Your task to perform on an android device: Search for sushi restaurants on Maps Image 0: 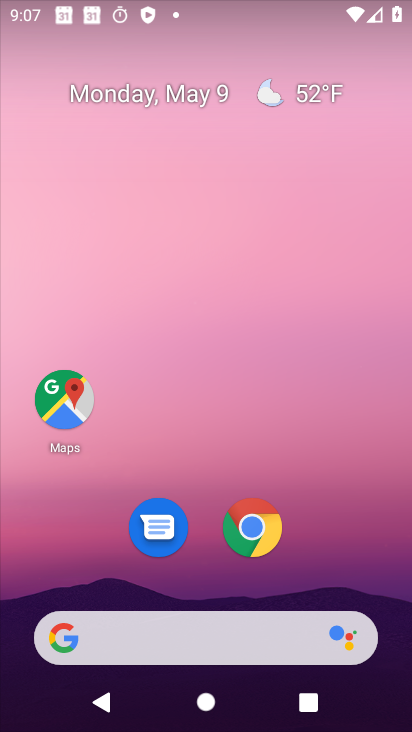
Step 0: drag from (383, 557) to (330, 145)
Your task to perform on an android device: Search for sushi restaurants on Maps Image 1: 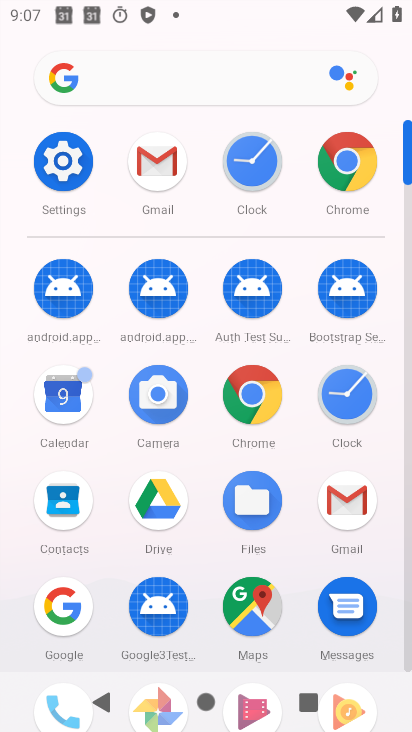
Step 1: click (268, 632)
Your task to perform on an android device: Search for sushi restaurants on Maps Image 2: 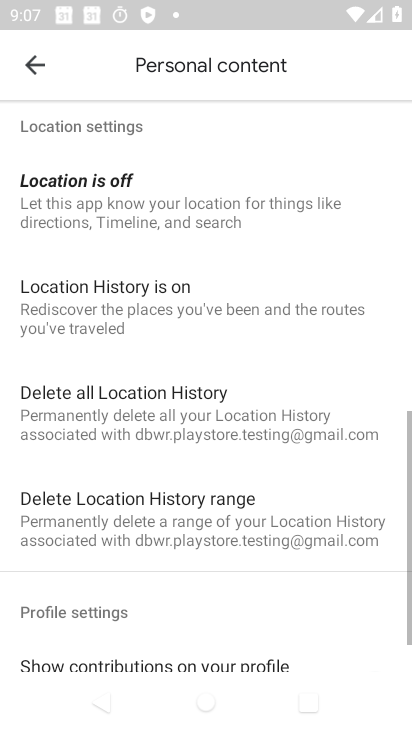
Step 2: click (22, 72)
Your task to perform on an android device: Search for sushi restaurants on Maps Image 3: 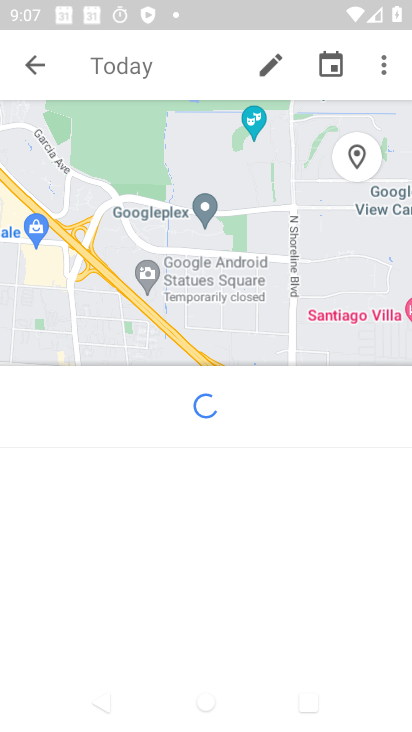
Step 3: click (21, 72)
Your task to perform on an android device: Search for sushi restaurants on Maps Image 4: 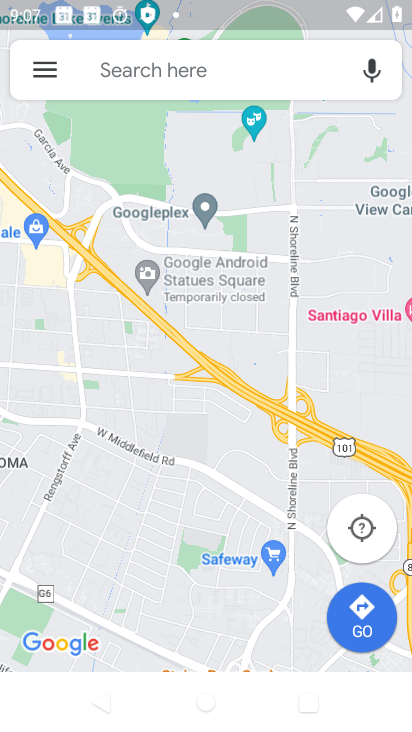
Step 4: click (189, 70)
Your task to perform on an android device: Search for sushi restaurants on Maps Image 5: 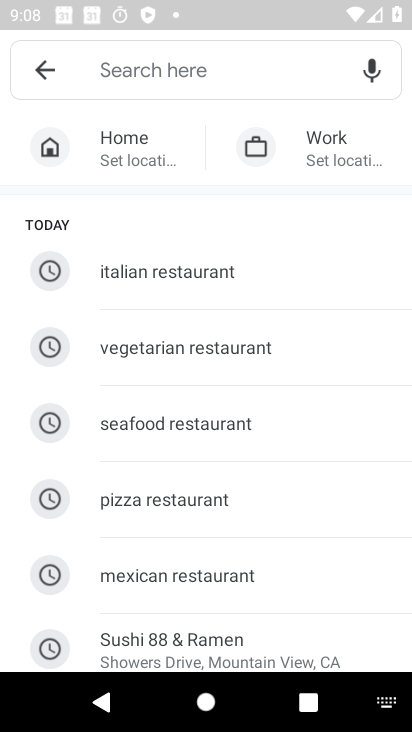
Step 5: type "sushi restaurants"
Your task to perform on an android device: Search for sushi restaurants on Maps Image 6: 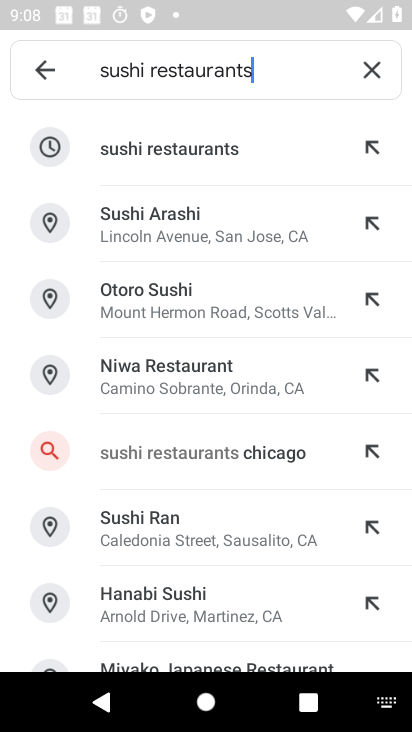
Step 6: click (222, 153)
Your task to perform on an android device: Search for sushi restaurants on Maps Image 7: 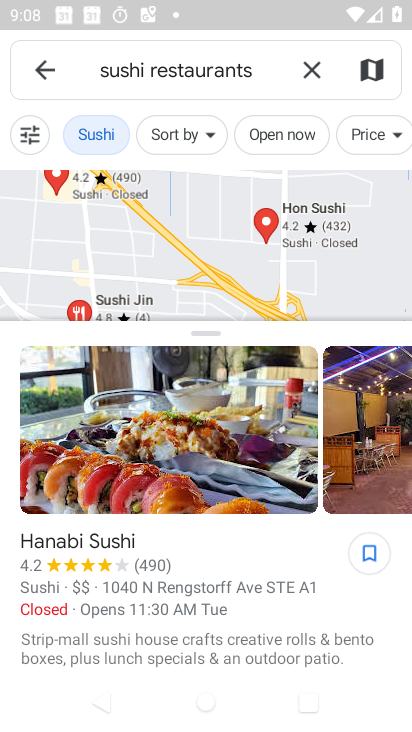
Step 7: task complete